Your task to perform on an android device: open chrome privacy settings Image 0: 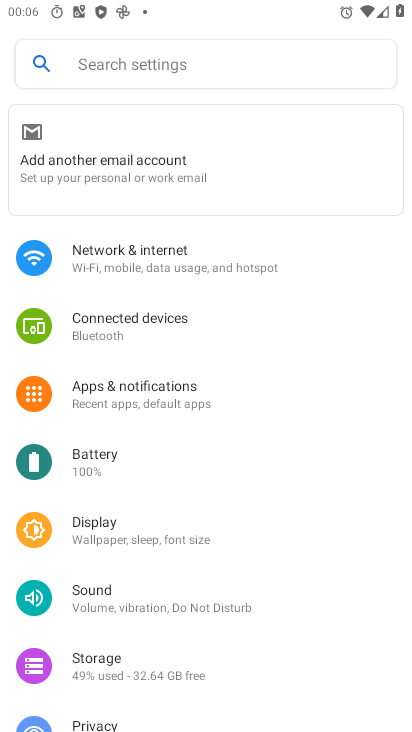
Step 0: press home button
Your task to perform on an android device: open chrome privacy settings Image 1: 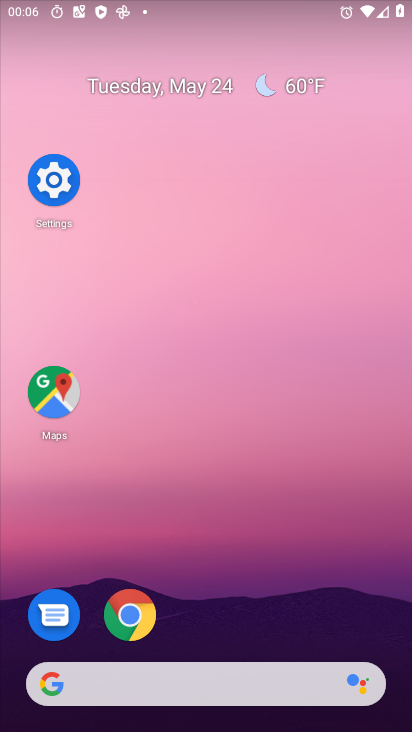
Step 1: click (47, 181)
Your task to perform on an android device: open chrome privacy settings Image 2: 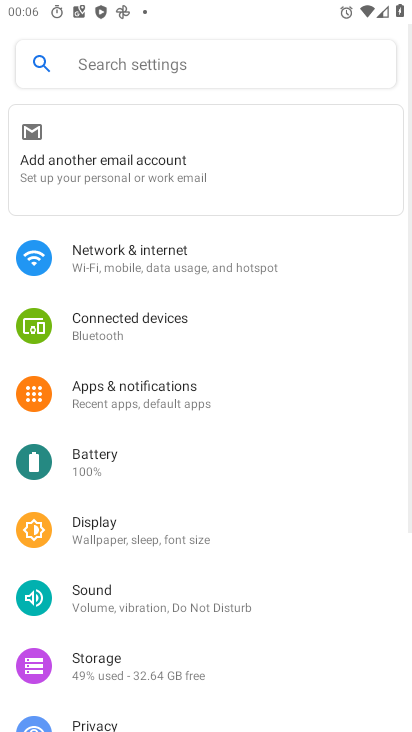
Step 2: drag from (168, 629) to (174, 220)
Your task to perform on an android device: open chrome privacy settings Image 3: 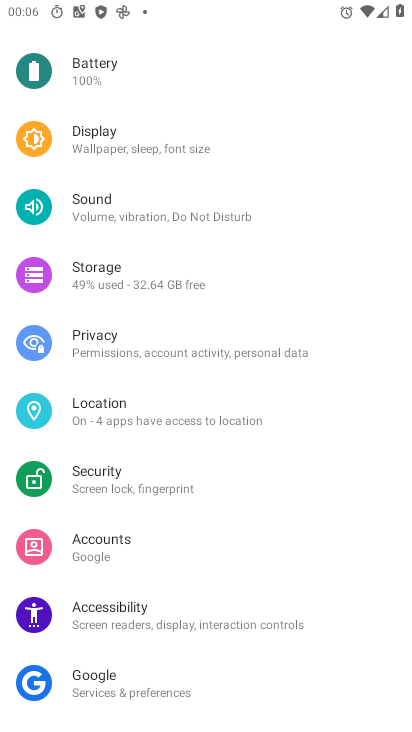
Step 3: click (92, 328)
Your task to perform on an android device: open chrome privacy settings Image 4: 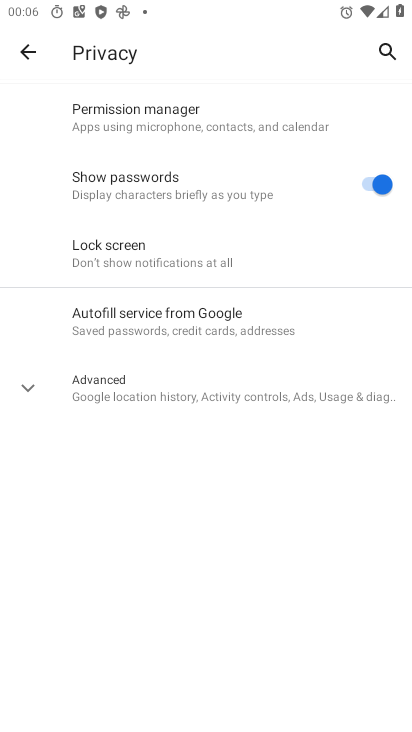
Step 4: task complete